Your task to perform on an android device: Clear all items from cart on amazon.com. Search for "usb-a" on amazon.com, select the first entry, add it to the cart, then select checkout. Image 0: 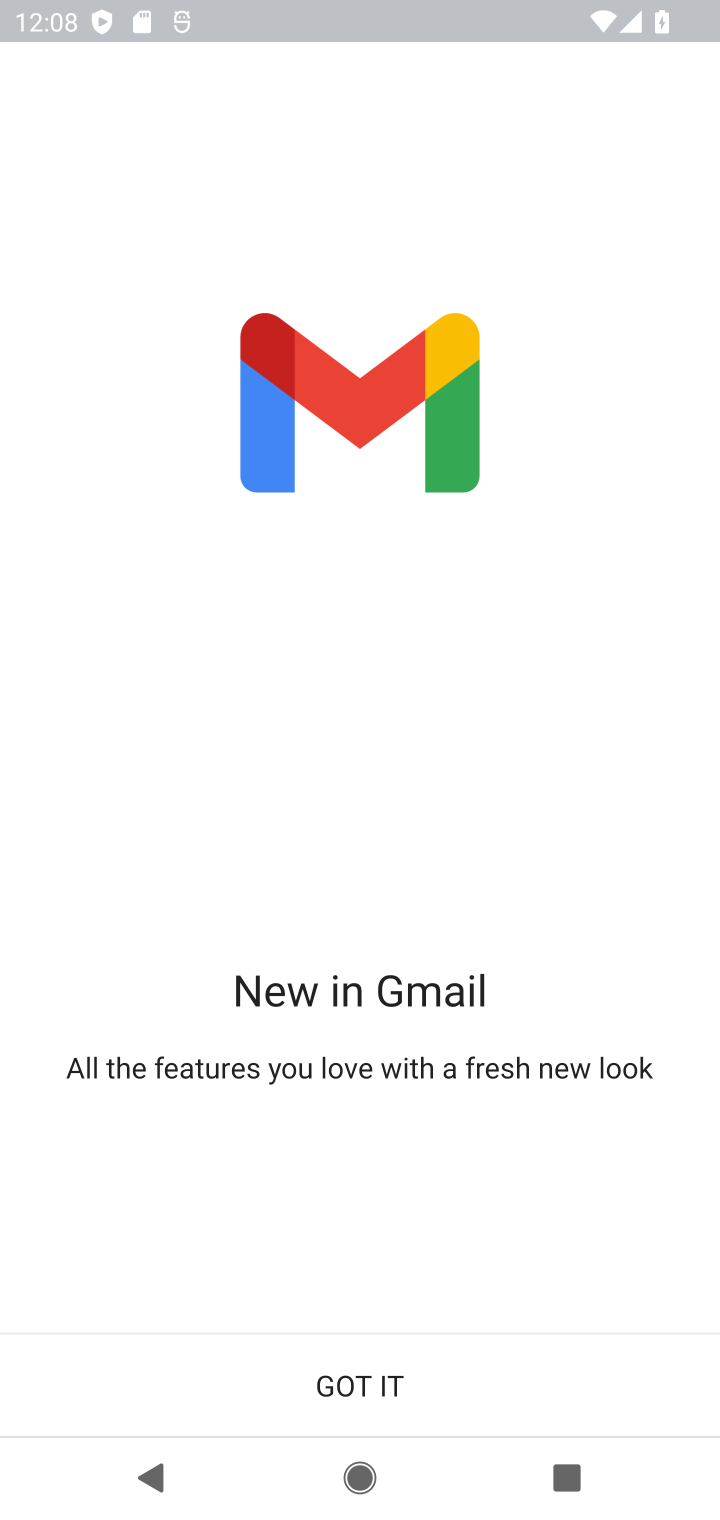
Step 0: press home button
Your task to perform on an android device: Clear all items from cart on amazon.com. Search for "usb-a" on amazon.com, select the first entry, add it to the cart, then select checkout. Image 1: 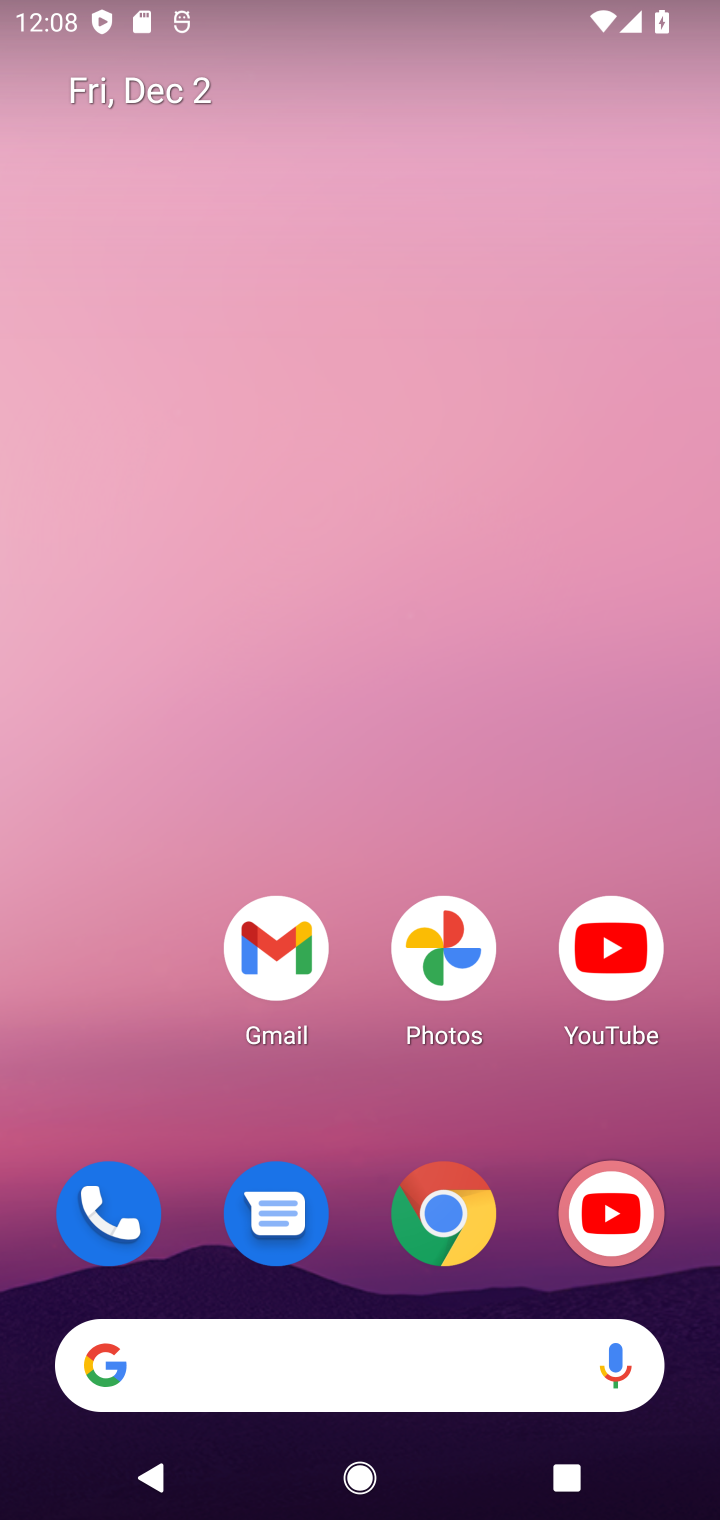
Step 1: drag from (381, 647) to (510, 44)
Your task to perform on an android device: Clear all items from cart on amazon.com. Search for "usb-a" on amazon.com, select the first entry, add it to the cart, then select checkout. Image 2: 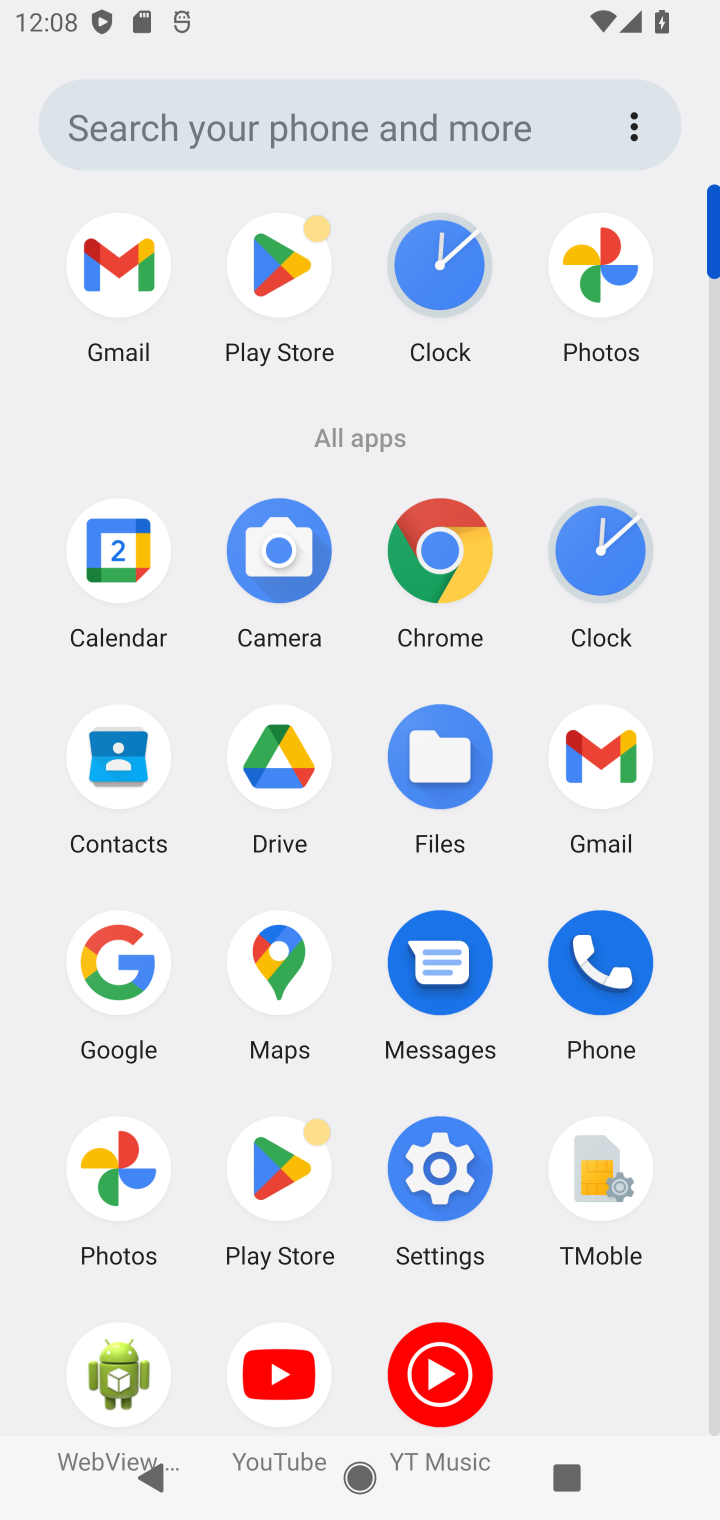
Step 2: click (141, 951)
Your task to perform on an android device: Clear all items from cart on amazon.com. Search for "usb-a" on amazon.com, select the first entry, add it to the cart, then select checkout. Image 3: 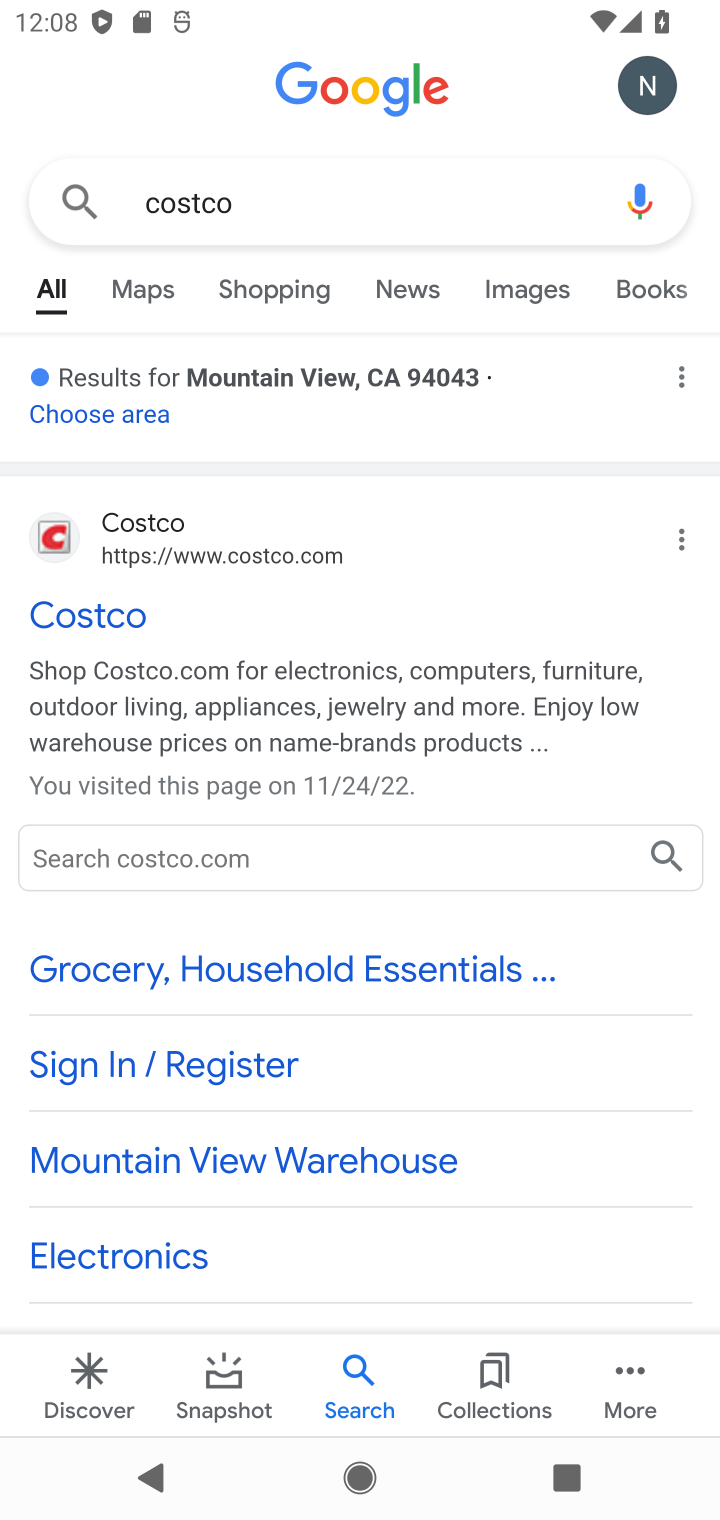
Step 3: click (249, 191)
Your task to perform on an android device: Clear all items from cart on amazon.com. Search for "usb-a" on amazon.com, select the first entry, add it to the cart, then select checkout. Image 4: 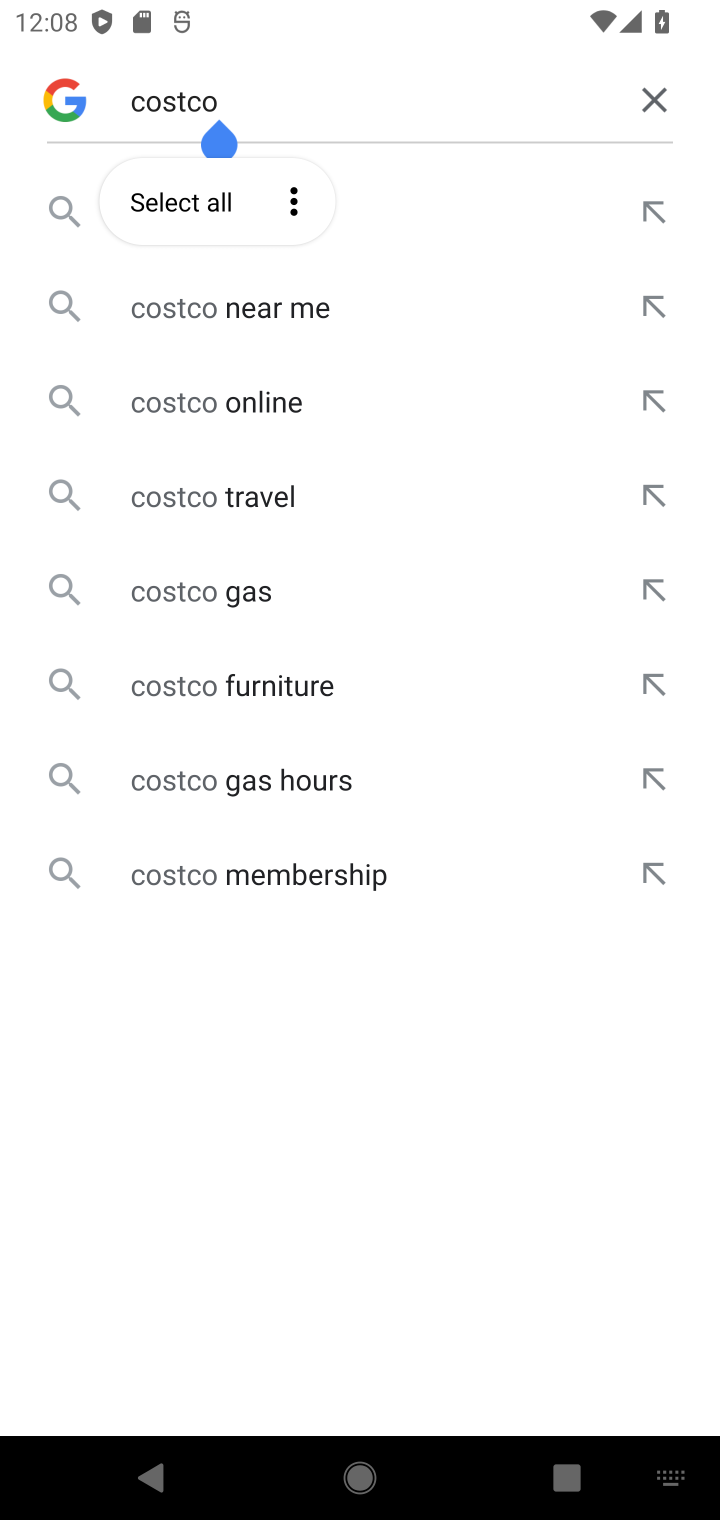
Step 4: click (656, 83)
Your task to perform on an android device: Clear all items from cart on amazon.com. Search for "usb-a" on amazon.com, select the first entry, add it to the cart, then select checkout. Image 5: 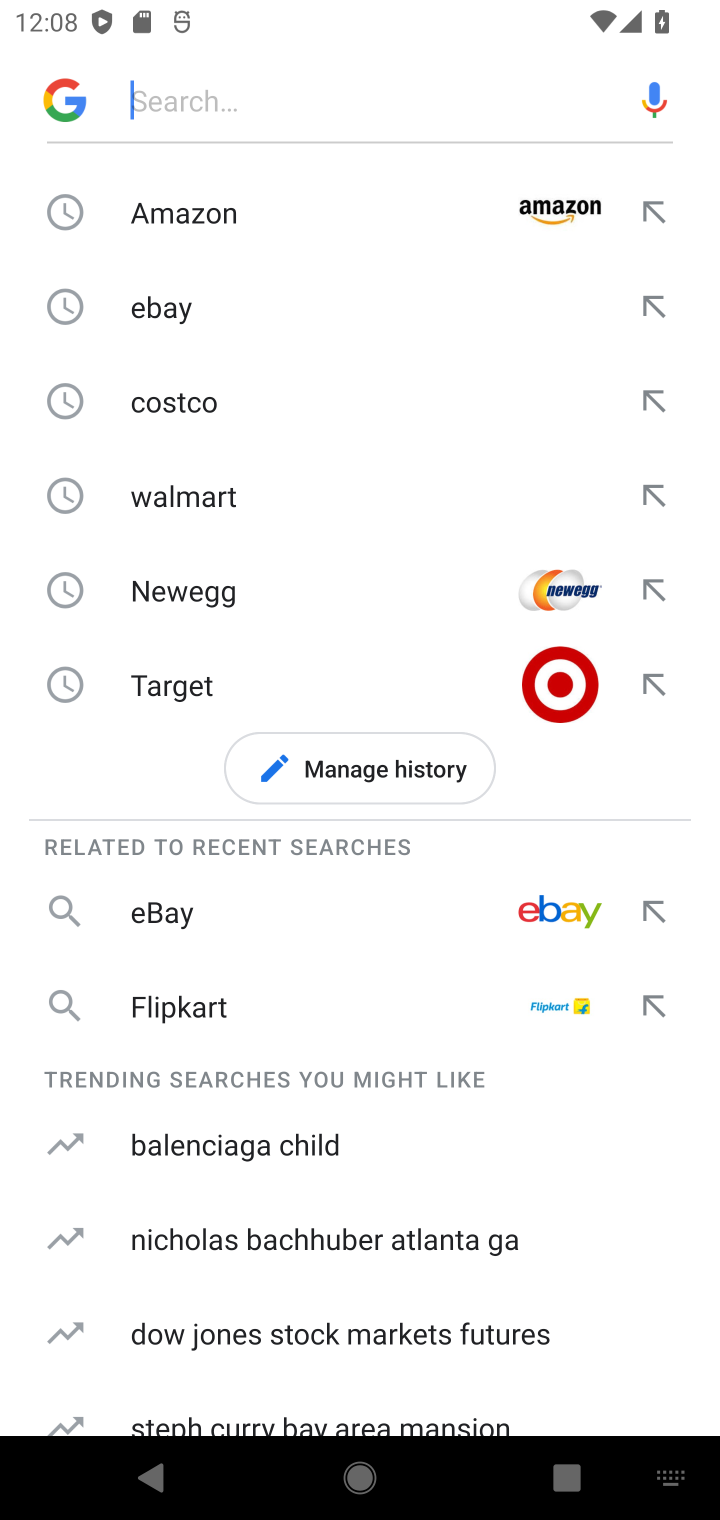
Step 5: click (246, 215)
Your task to perform on an android device: Clear all items from cart on amazon.com. Search for "usb-a" on amazon.com, select the first entry, add it to the cart, then select checkout. Image 6: 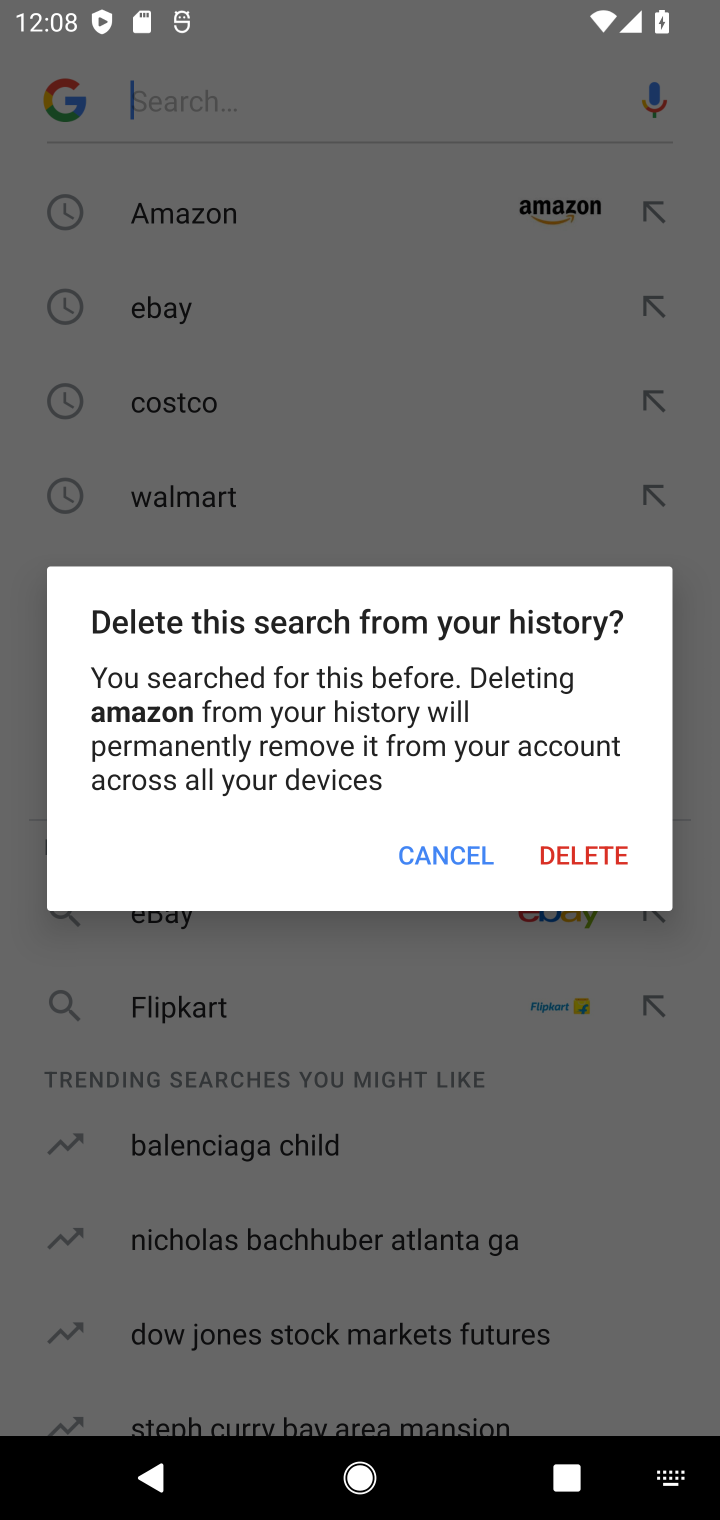
Step 6: click (469, 839)
Your task to perform on an android device: Clear all items from cart on amazon.com. Search for "usb-a" on amazon.com, select the first entry, add it to the cart, then select checkout. Image 7: 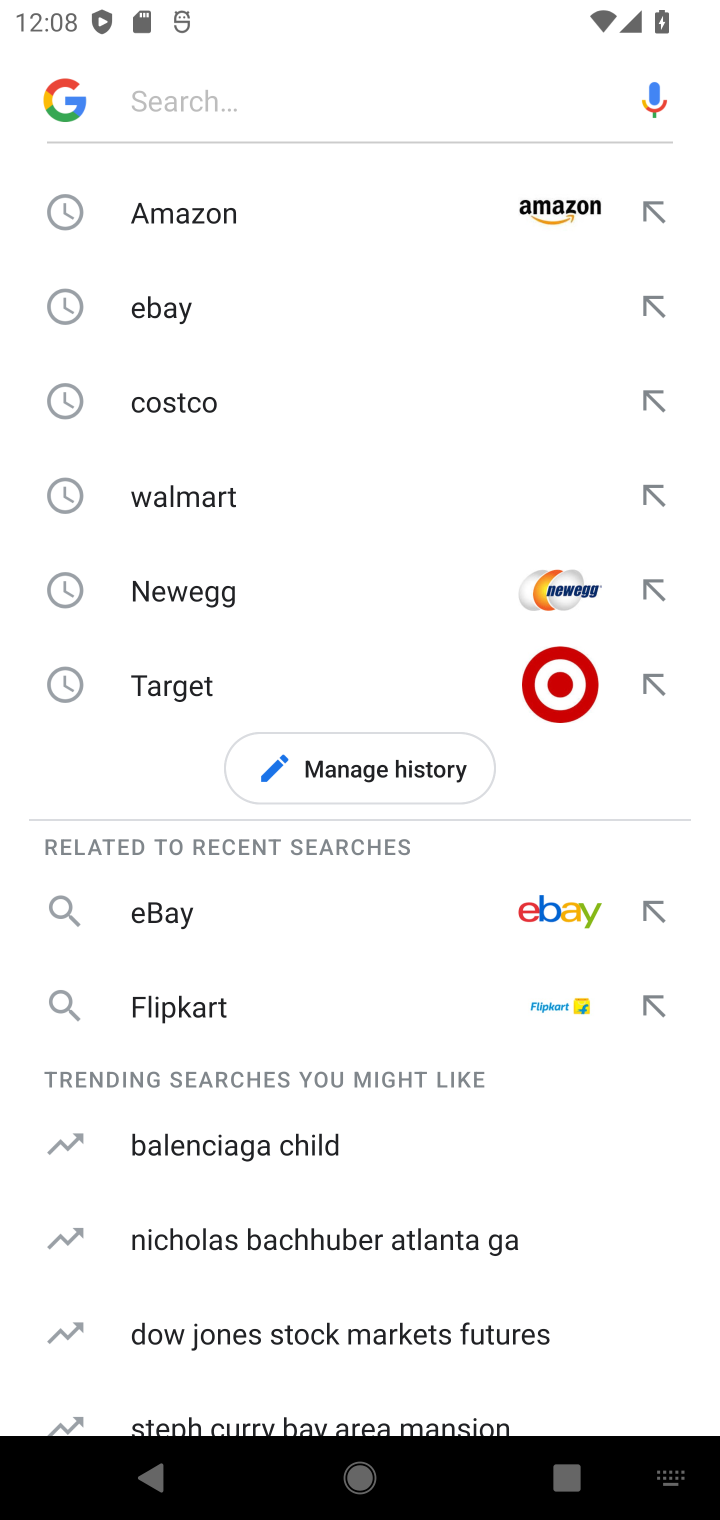
Step 7: click (567, 202)
Your task to perform on an android device: Clear all items from cart on amazon.com. Search for "usb-a" on amazon.com, select the first entry, add it to the cart, then select checkout. Image 8: 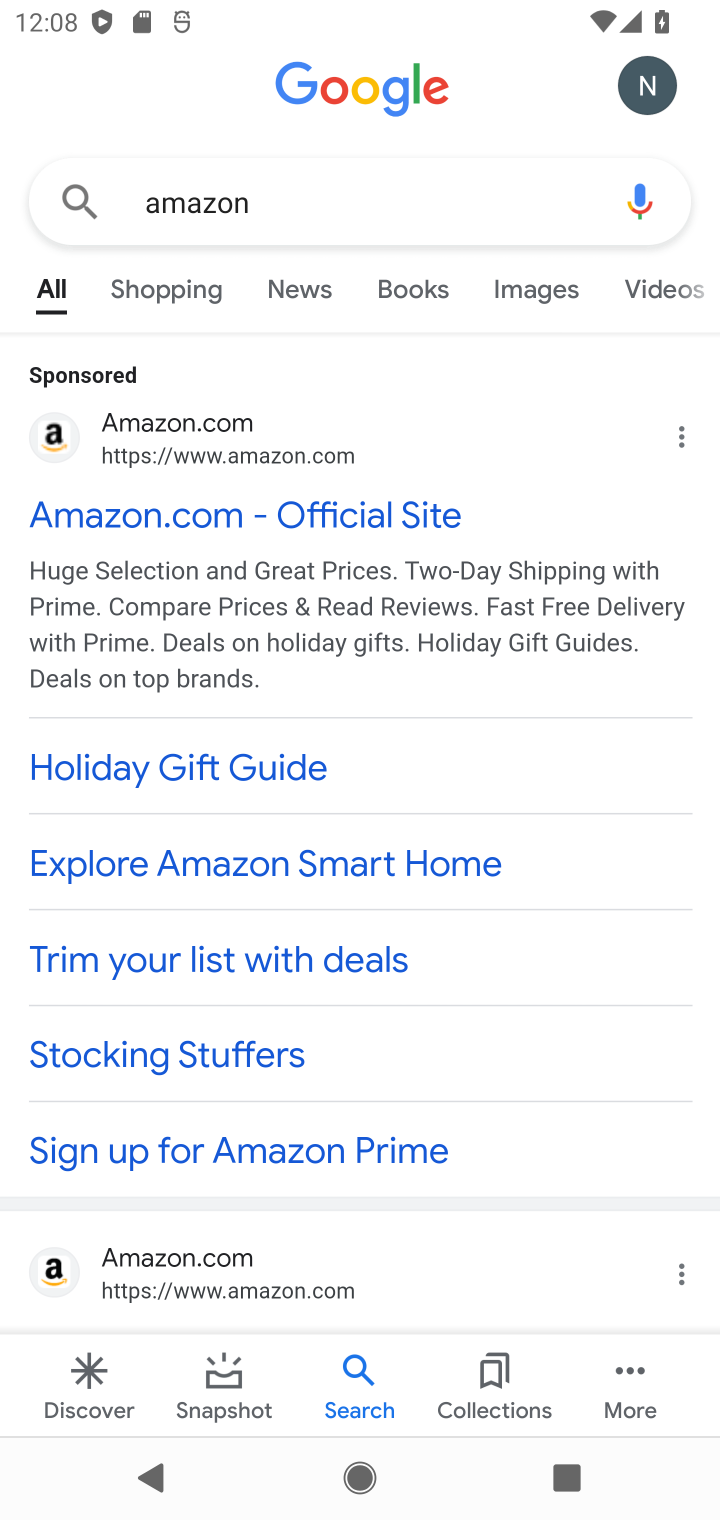
Step 8: click (226, 506)
Your task to perform on an android device: Clear all items from cart on amazon.com. Search for "usb-a" on amazon.com, select the first entry, add it to the cart, then select checkout. Image 9: 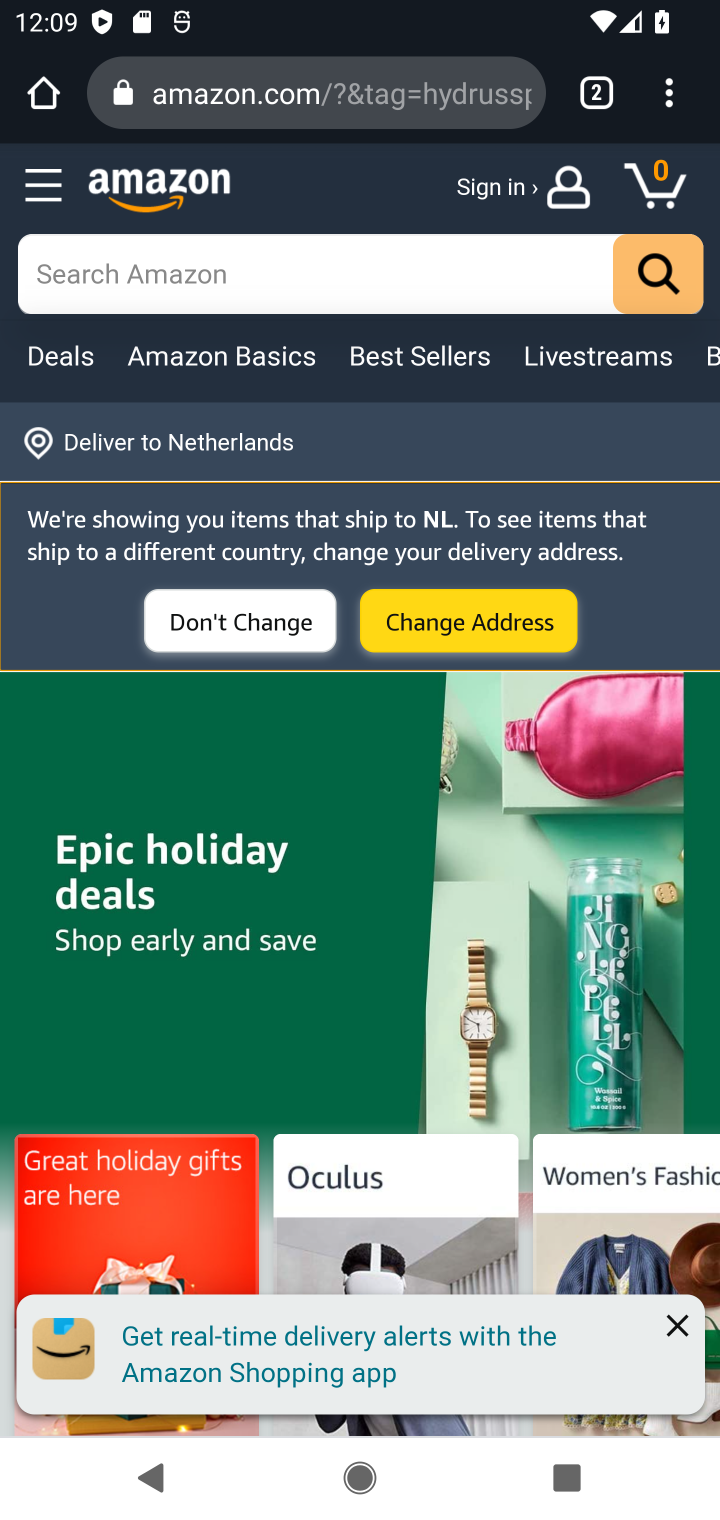
Step 9: click (669, 1328)
Your task to perform on an android device: Clear all items from cart on amazon.com. Search for "usb-a" on amazon.com, select the first entry, add it to the cart, then select checkout. Image 10: 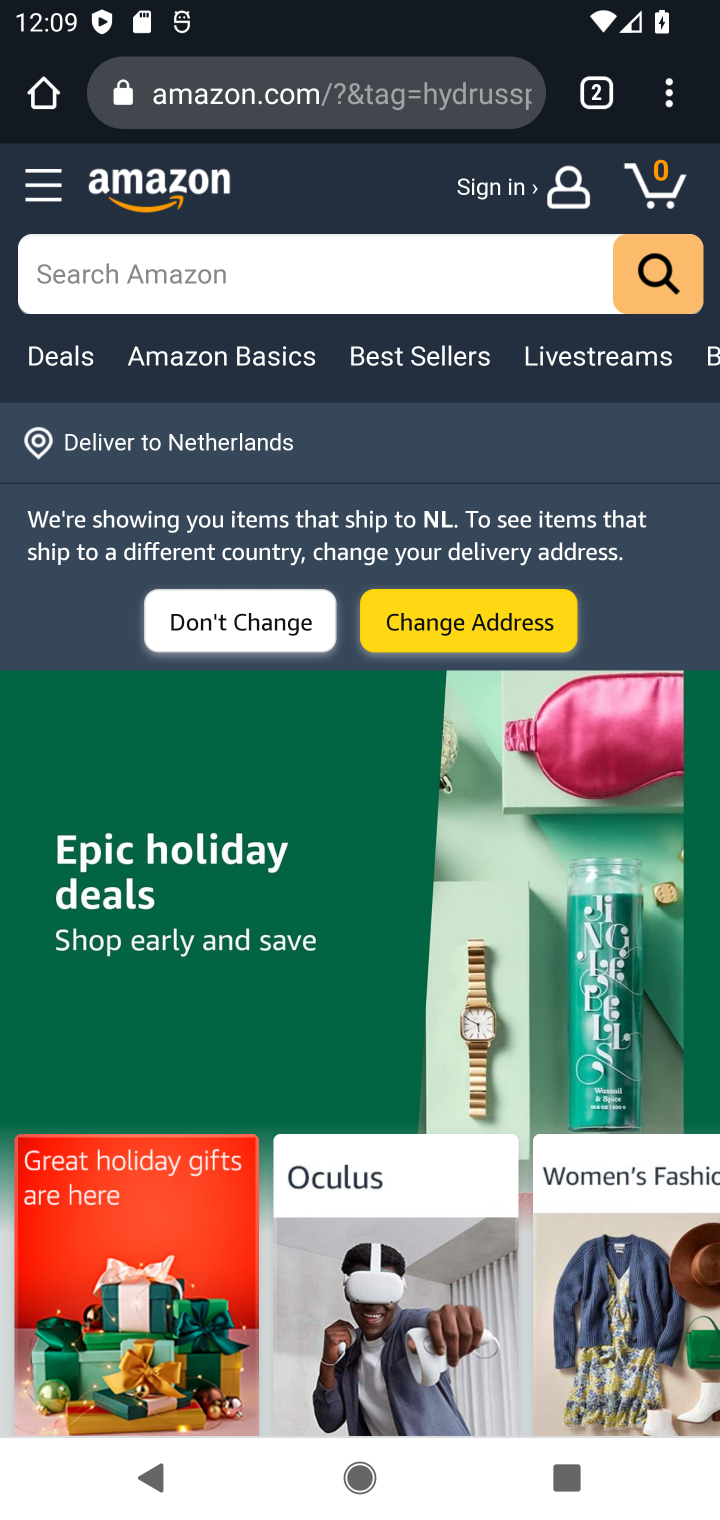
Step 10: click (213, 248)
Your task to perform on an android device: Clear all items from cart on amazon.com. Search for "usb-a" on amazon.com, select the first entry, add it to the cart, then select checkout. Image 11: 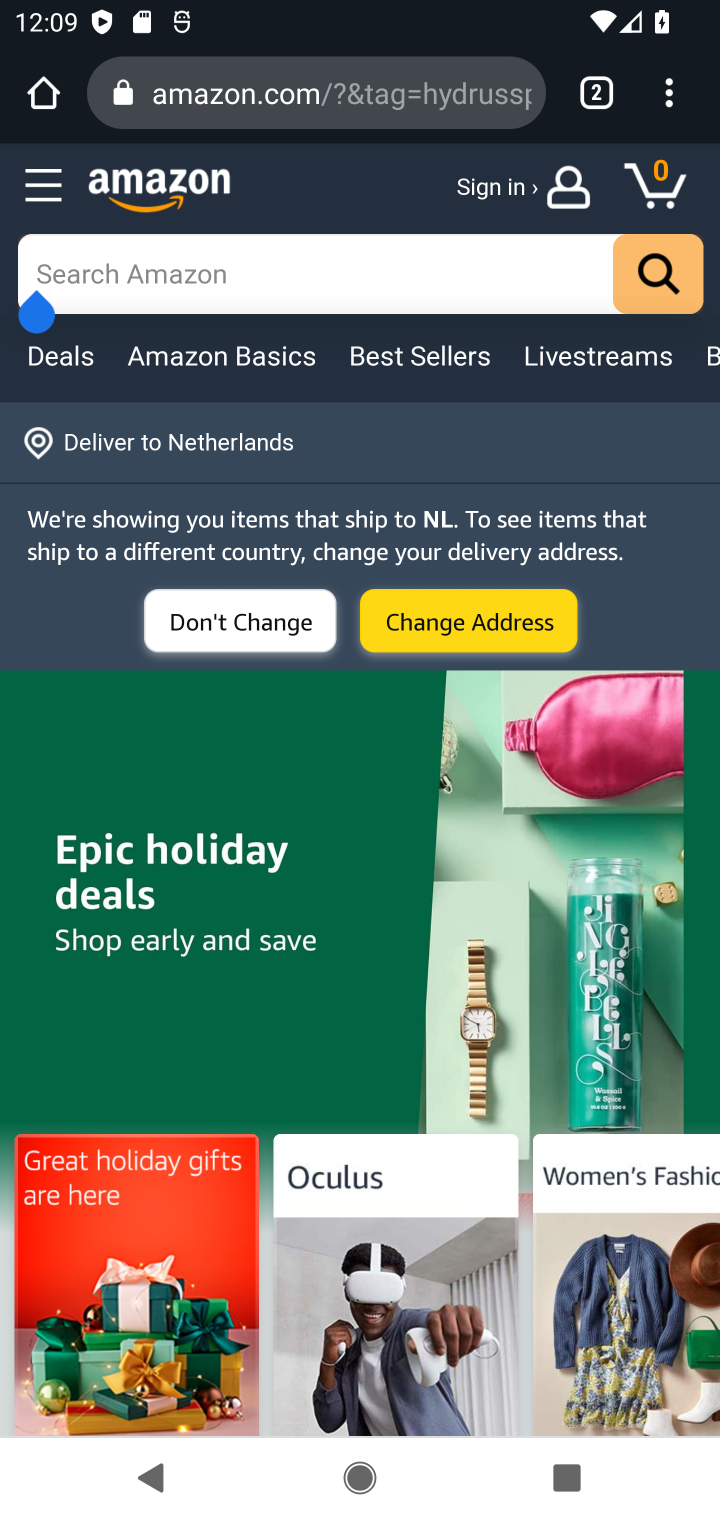
Step 11: type "usb-a"
Your task to perform on an android device: Clear all items from cart on amazon.com. Search for "usb-a" on amazon.com, select the first entry, add it to the cart, then select checkout. Image 12: 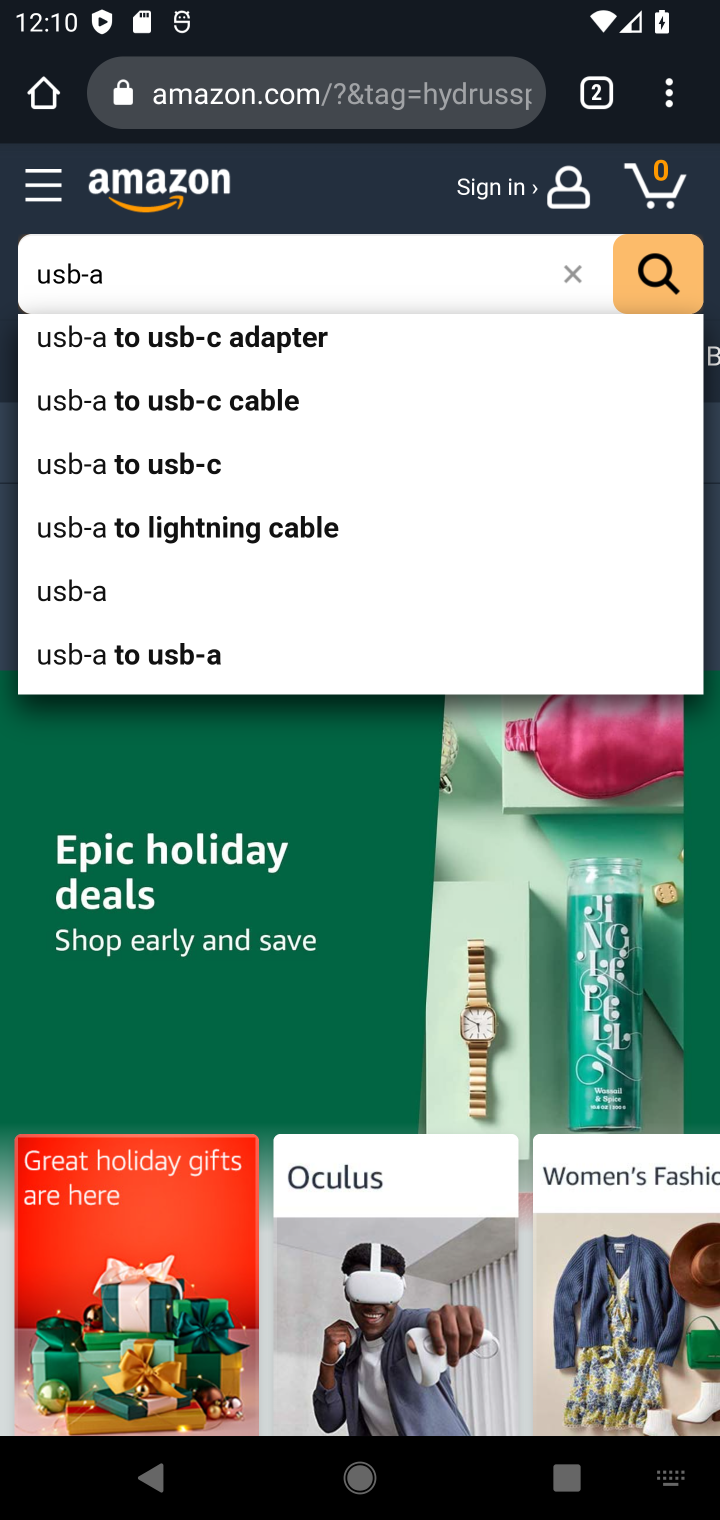
Step 12: click (53, 593)
Your task to perform on an android device: Clear all items from cart on amazon.com. Search for "usb-a" on amazon.com, select the first entry, add it to the cart, then select checkout. Image 13: 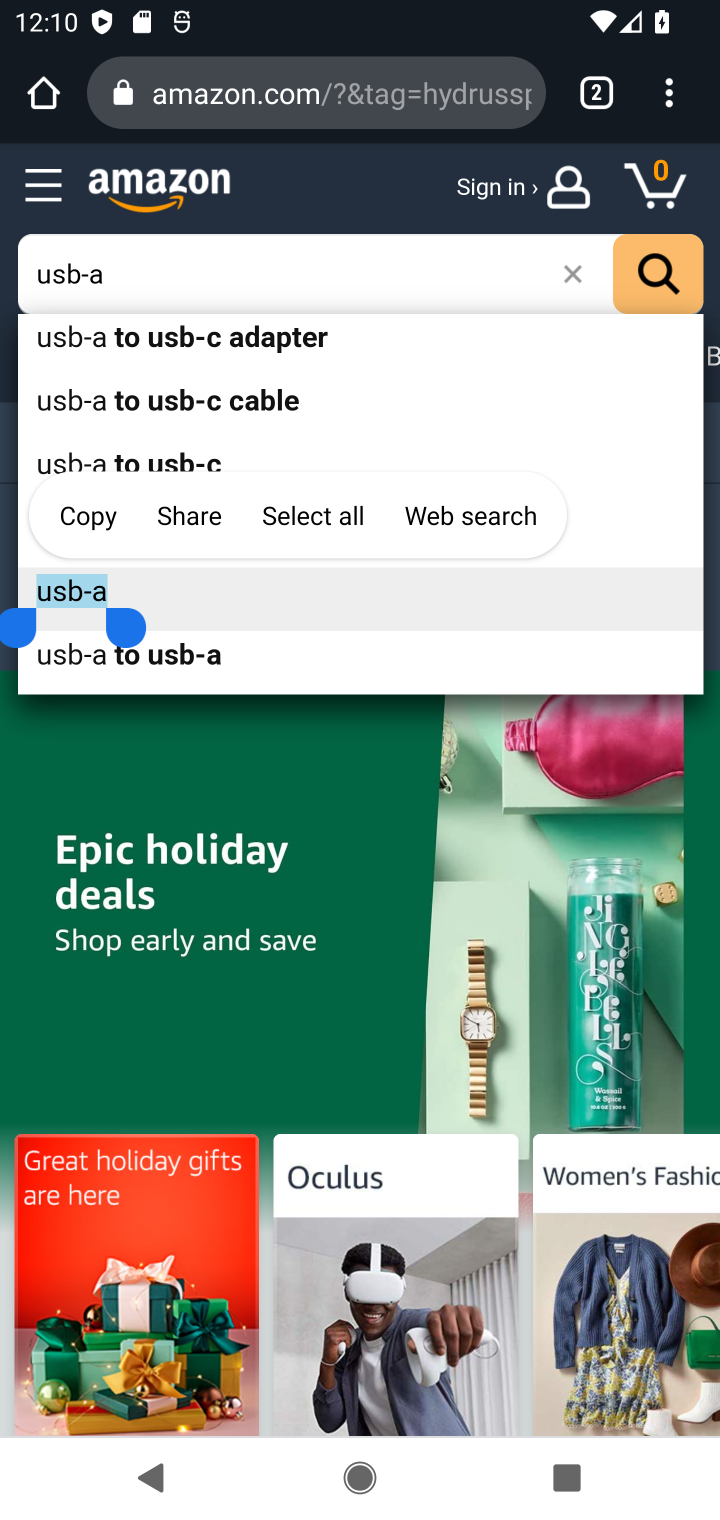
Step 13: click (77, 594)
Your task to perform on an android device: Clear all items from cart on amazon.com. Search for "usb-a" on amazon.com, select the first entry, add it to the cart, then select checkout. Image 14: 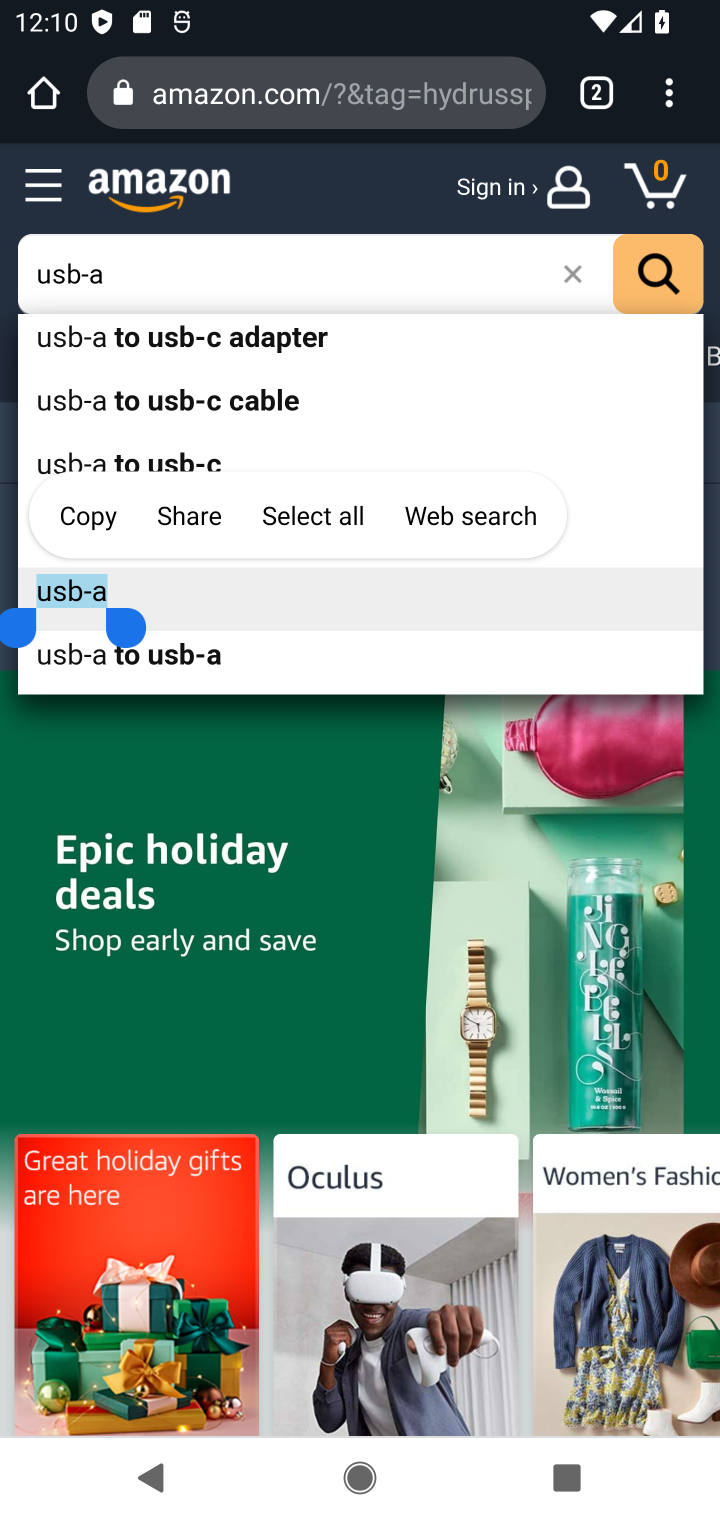
Step 14: click (189, 593)
Your task to perform on an android device: Clear all items from cart on amazon.com. Search for "usb-a" on amazon.com, select the first entry, add it to the cart, then select checkout. Image 15: 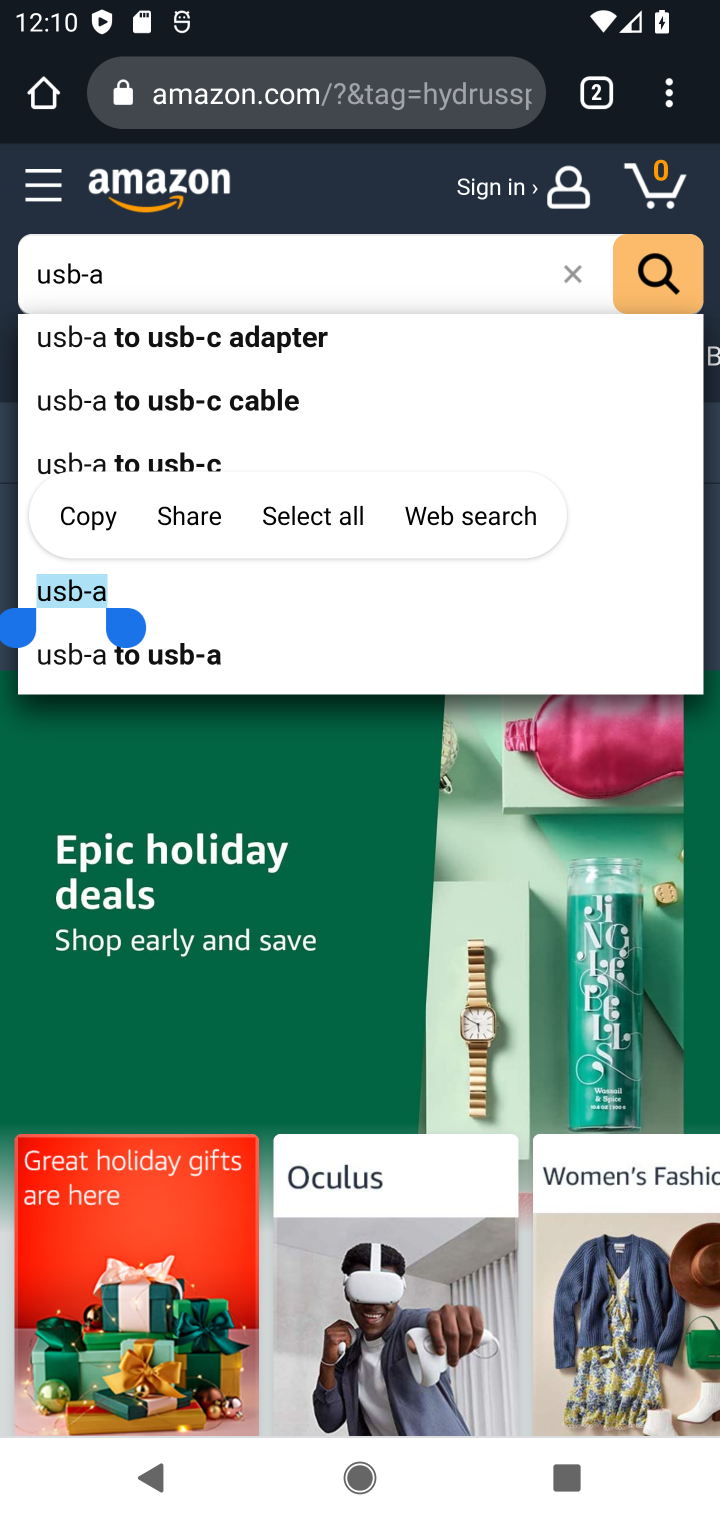
Step 15: click (128, 585)
Your task to perform on an android device: Clear all items from cart on amazon.com. Search for "usb-a" on amazon.com, select the first entry, add it to the cart, then select checkout. Image 16: 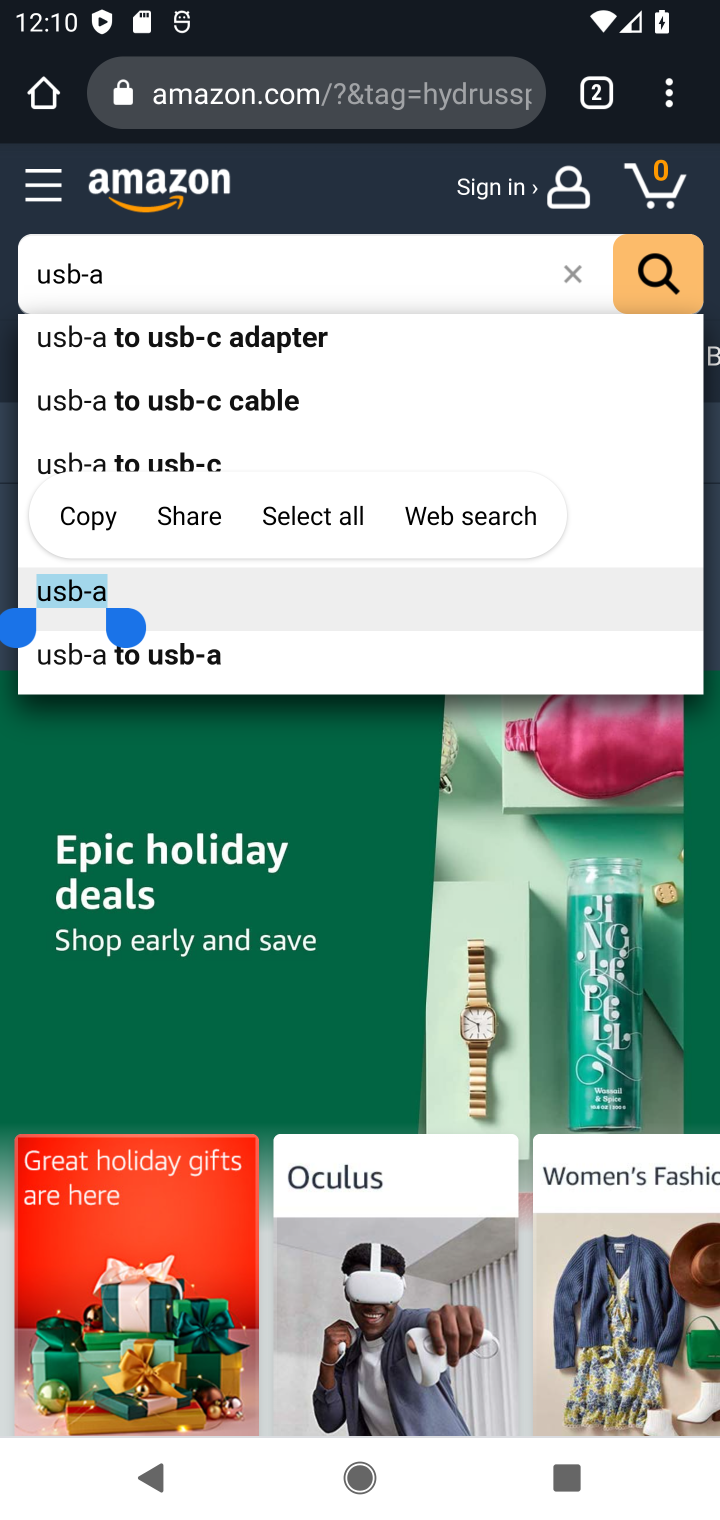
Step 16: click (74, 587)
Your task to perform on an android device: Clear all items from cart on amazon.com. Search for "usb-a" on amazon.com, select the first entry, add it to the cart, then select checkout. Image 17: 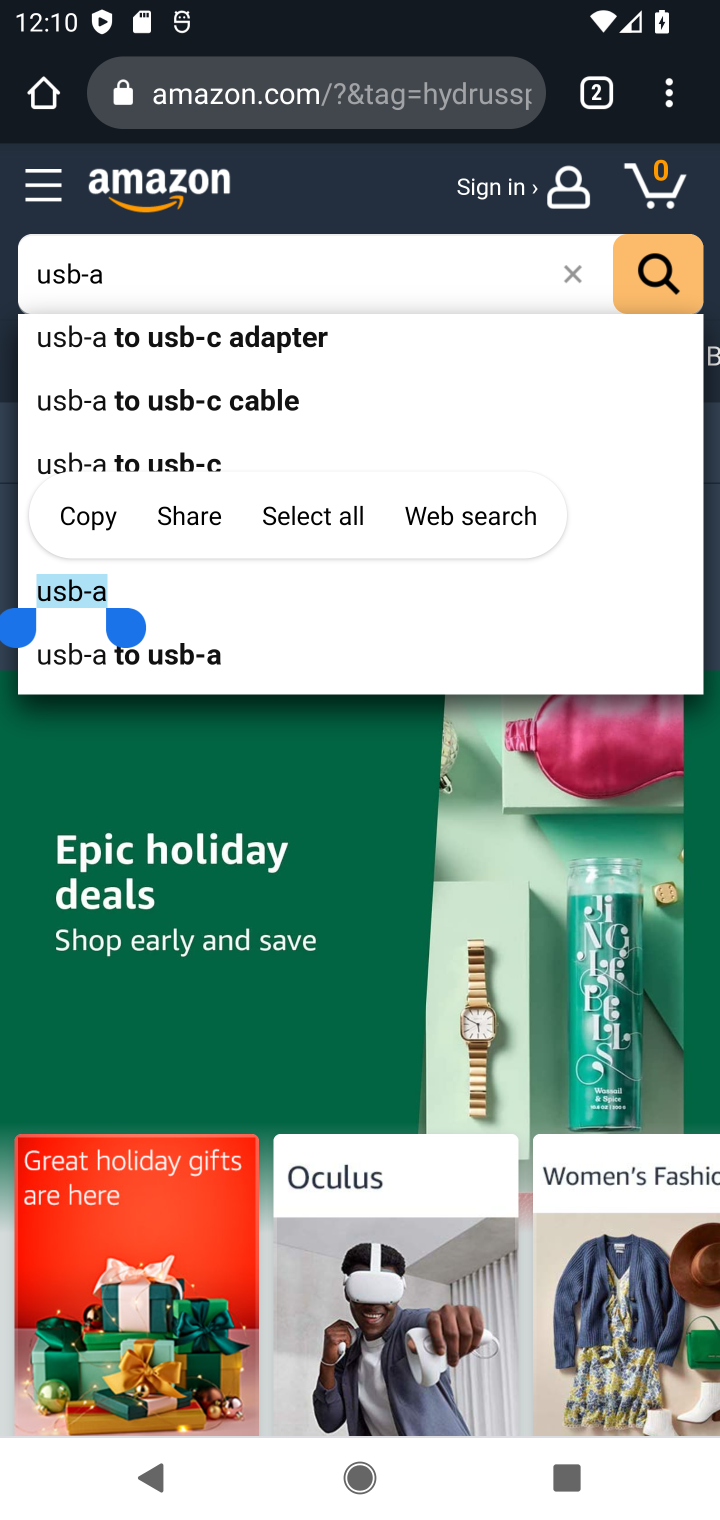
Step 17: click (656, 258)
Your task to perform on an android device: Clear all items from cart on amazon.com. Search for "usb-a" on amazon.com, select the first entry, add it to the cart, then select checkout. Image 18: 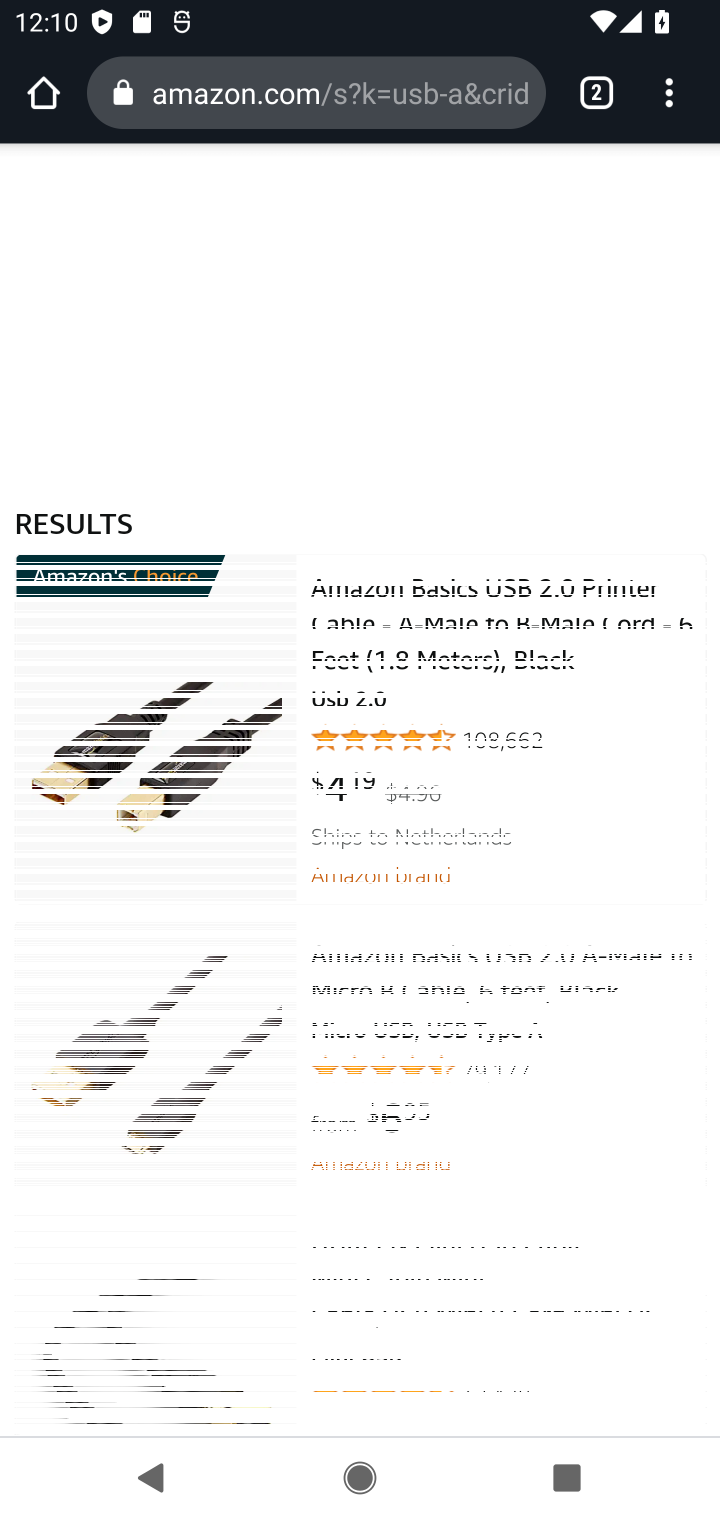
Step 18: click (364, 677)
Your task to perform on an android device: Clear all items from cart on amazon.com. Search for "usb-a" on amazon.com, select the first entry, add it to the cart, then select checkout. Image 19: 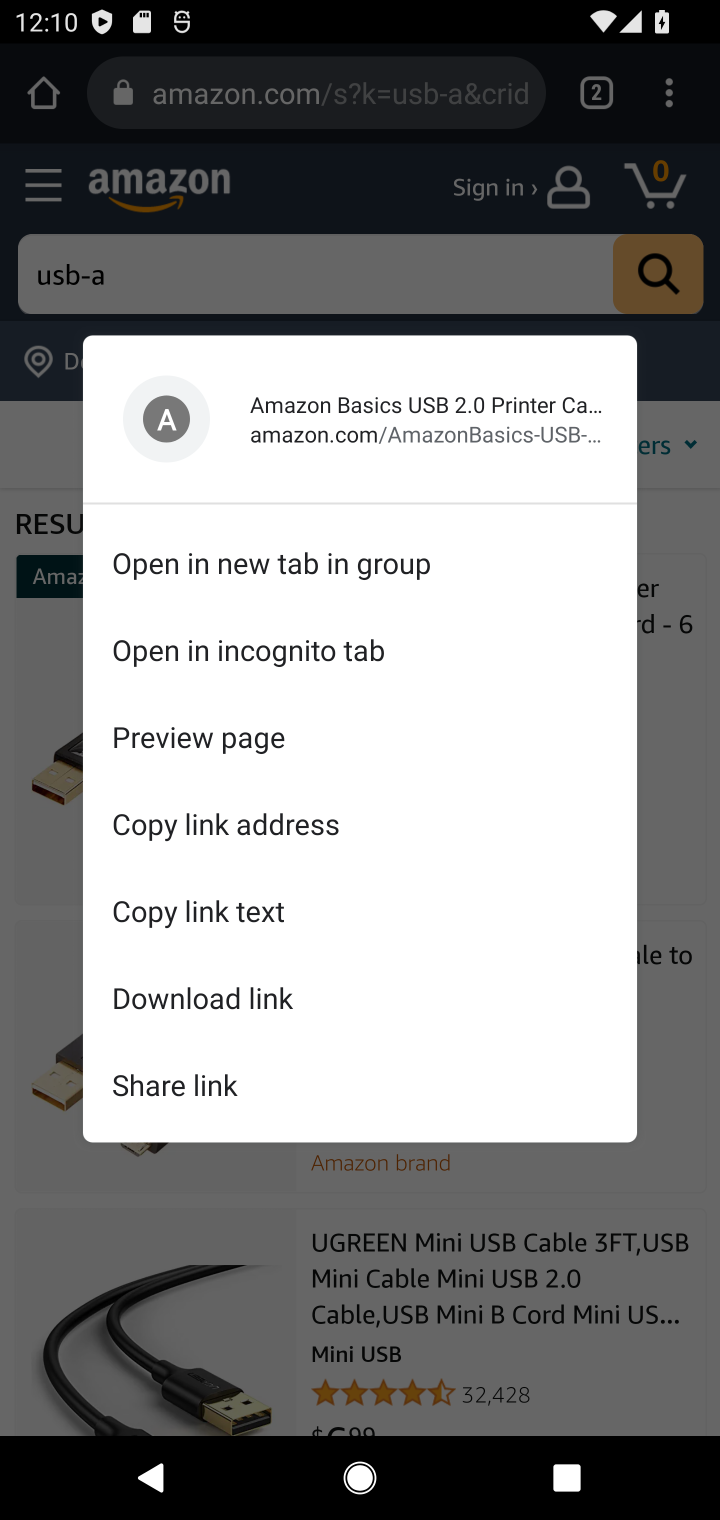
Step 19: click (30, 711)
Your task to perform on an android device: Clear all items from cart on amazon.com. Search for "usb-a" on amazon.com, select the first entry, add it to the cart, then select checkout. Image 20: 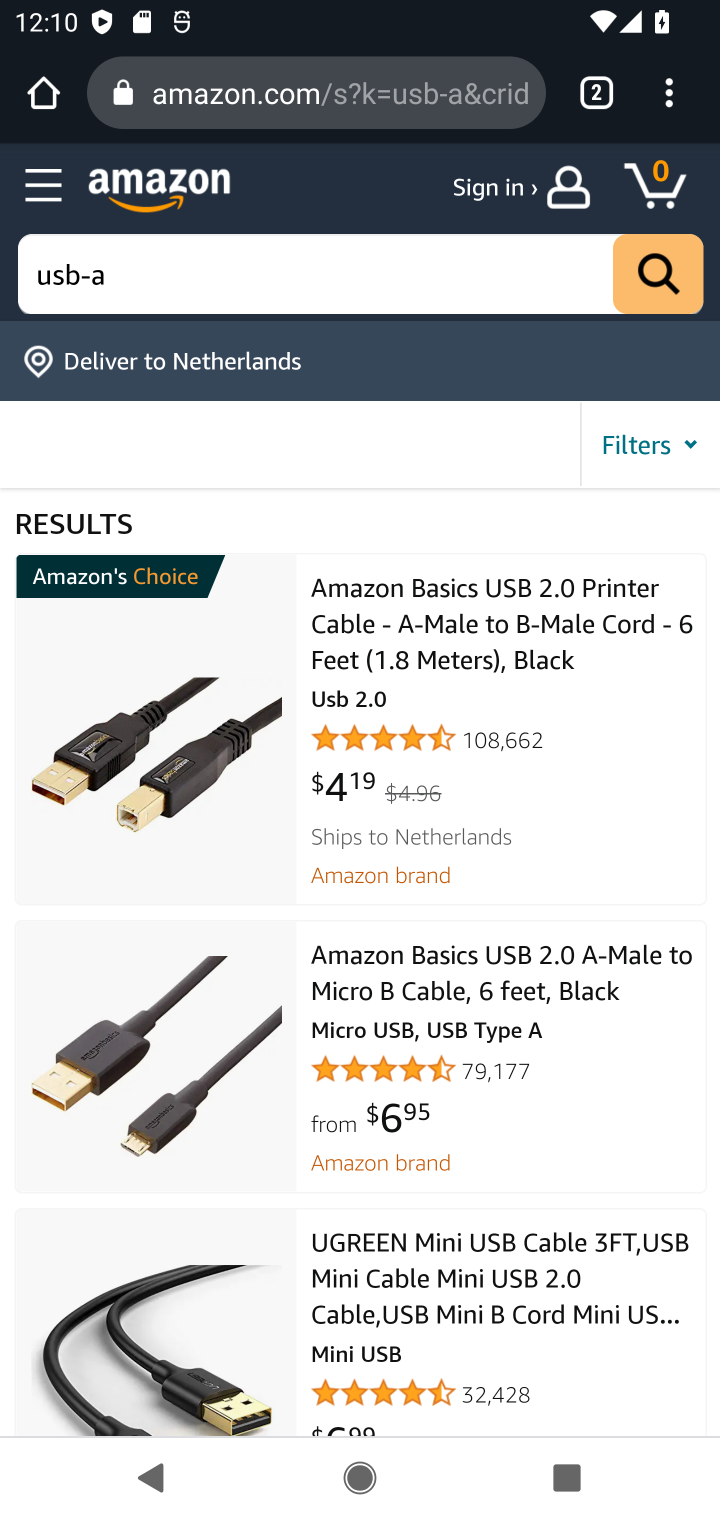
Step 20: click (144, 821)
Your task to perform on an android device: Clear all items from cart on amazon.com. Search for "usb-a" on amazon.com, select the first entry, add it to the cart, then select checkout. Image 21: 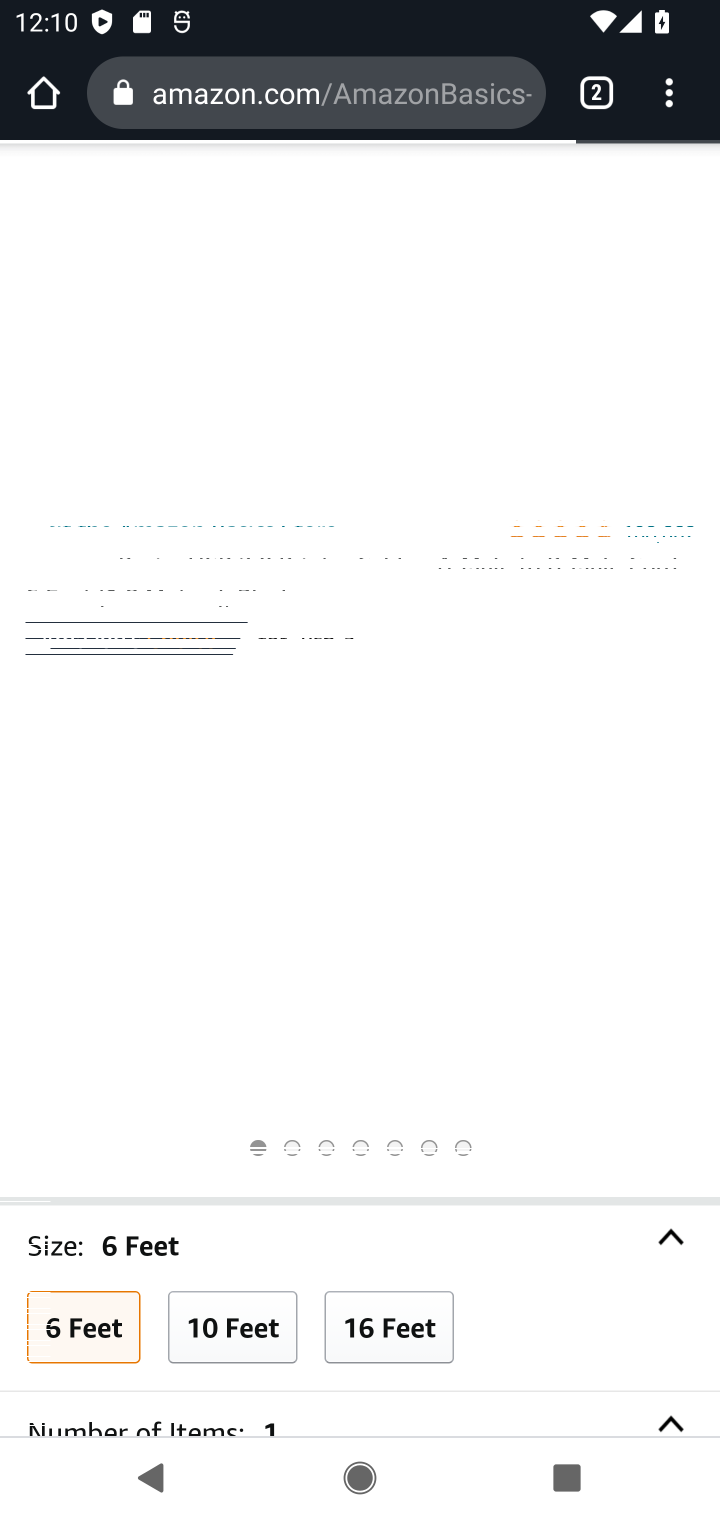
Step 21: drag from (436, 1187) to (338, 639)
Your task to perform on an android device: Clear all items from cart on amazon.com. Search for "usb-a" on amazon.com, select the first entry, add it to the cart, then select checkout. Image 22: 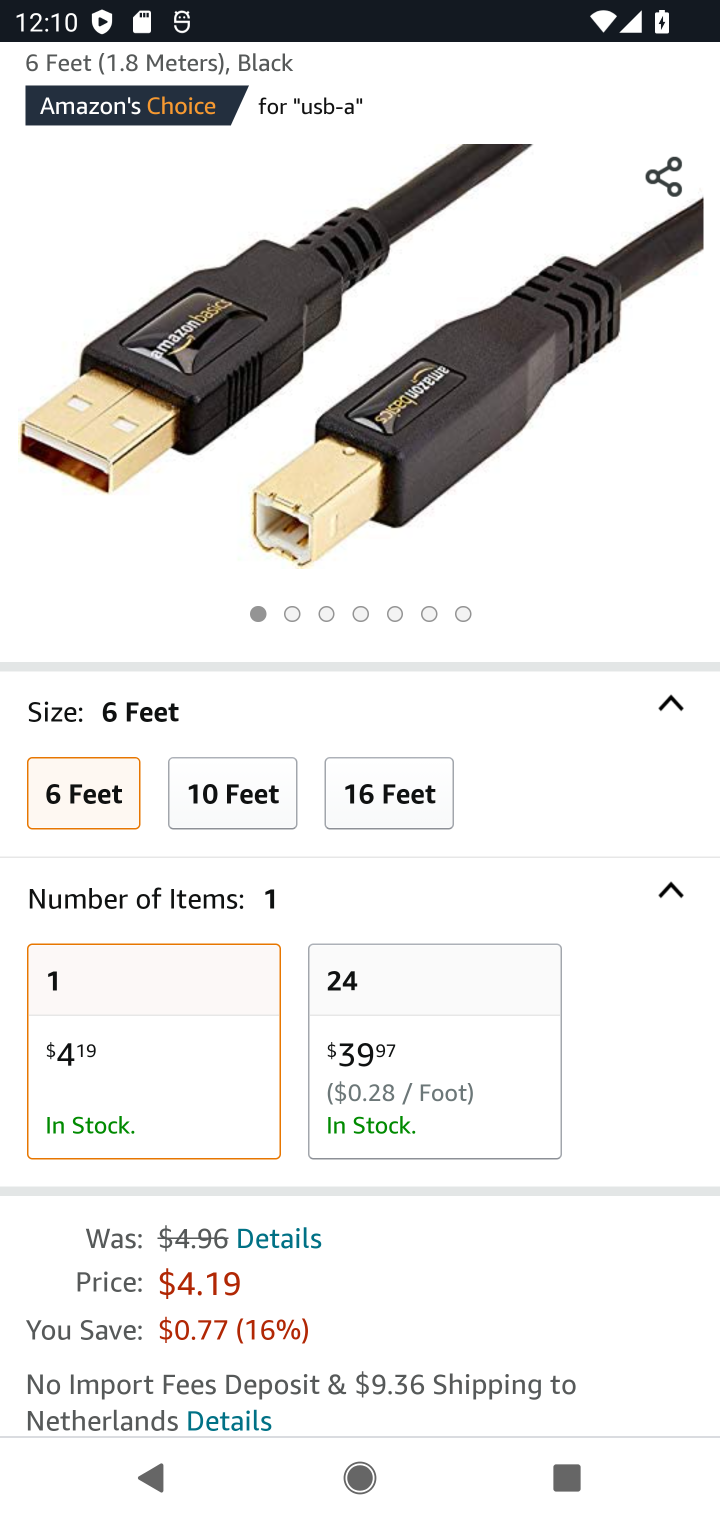
Step 22: drag from (479, 912) to (468, 705)
Your task to perform on an android device: Clear all items from cart on amazon.com. Search for "usb-a" on amazon.com, select the first entry, add it to the cart, then select checkout. Image 23: 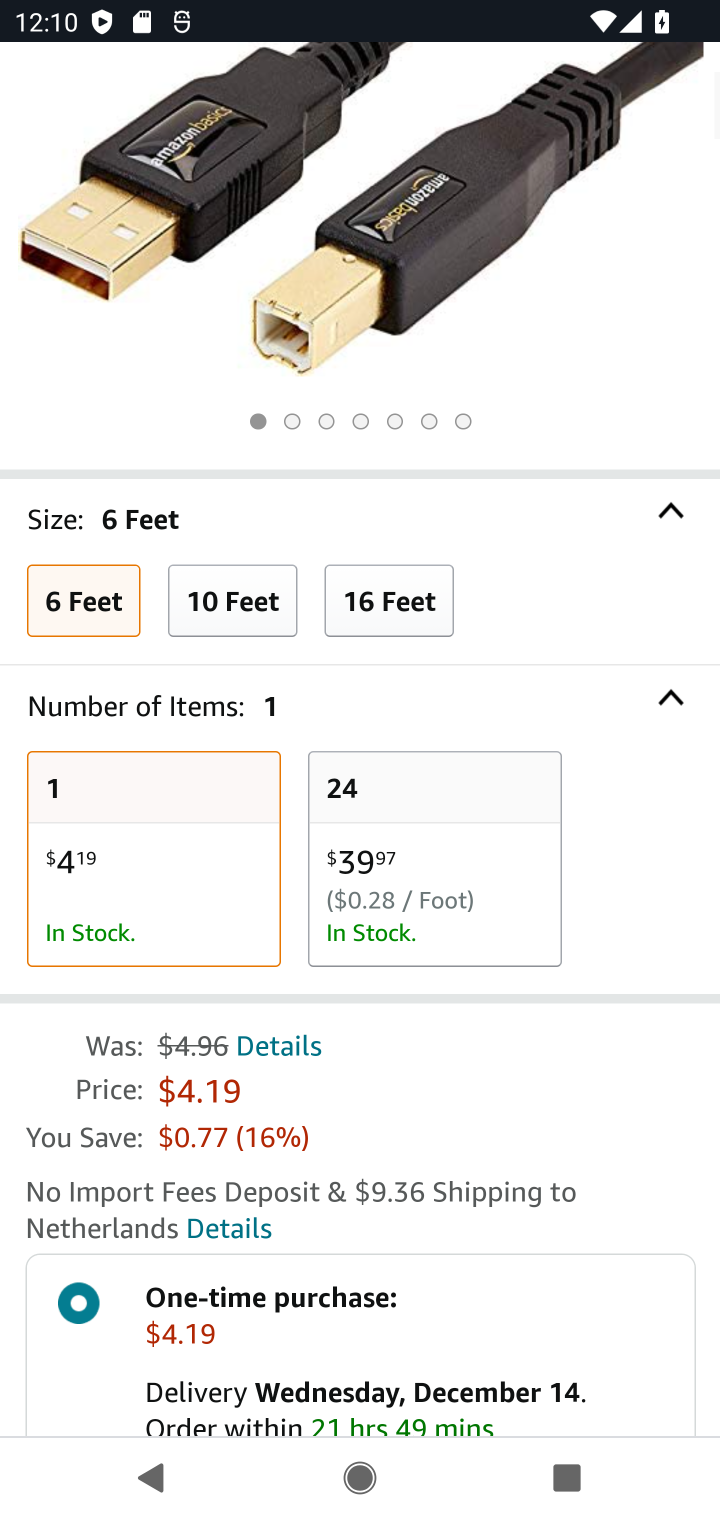
Step 23: drag from (508, 1344) to (510, 657)
Your task to perform on an android device: Clear all items from cart on amazon.com. Search for "usb-a" on amazon.com, select the first entry, add it to the cart, then select checkout. Image 24: 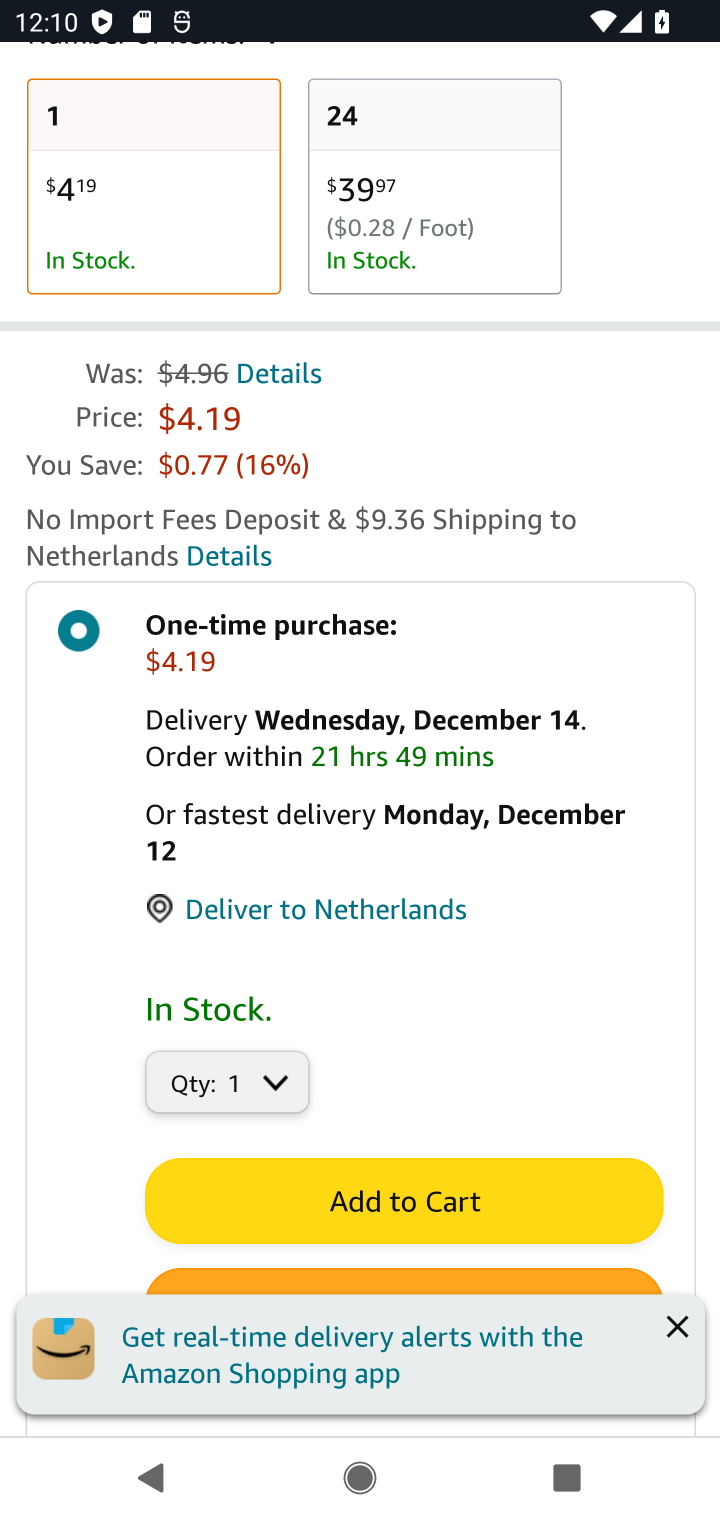
Step 24: click (438, 1208)
Your task to perform on an android device: Clear all items from cart on amazon.com. Search for "usb-a" on amazon.com, select the first entry, add it to the cart, then select checkout. Image 25: 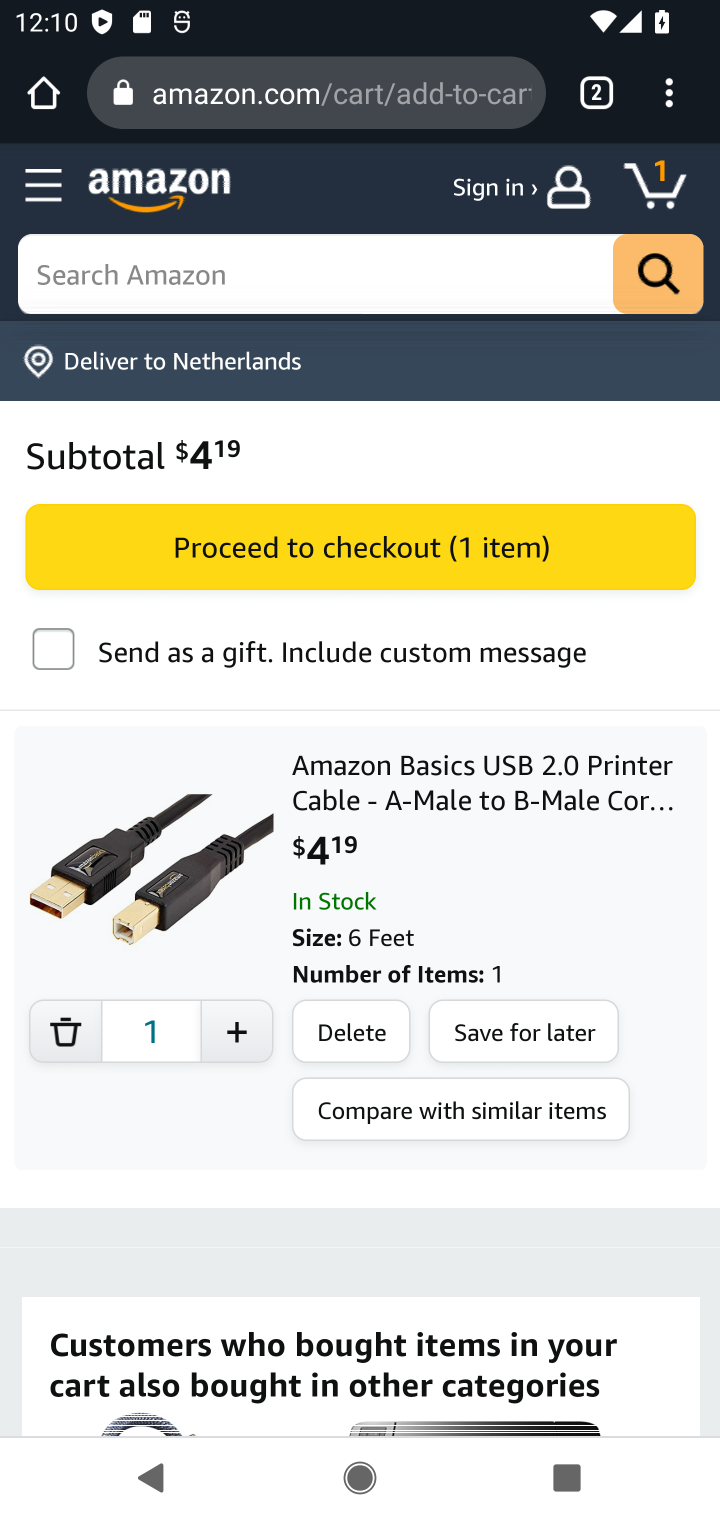
Step 25: click (639, 178)
Your task to perform on an android device: Clear all items from cart on amazon.com. Search for "usb-a" on amazon.com, select the first entry, add it to the cart, then select checkout. Image 26: 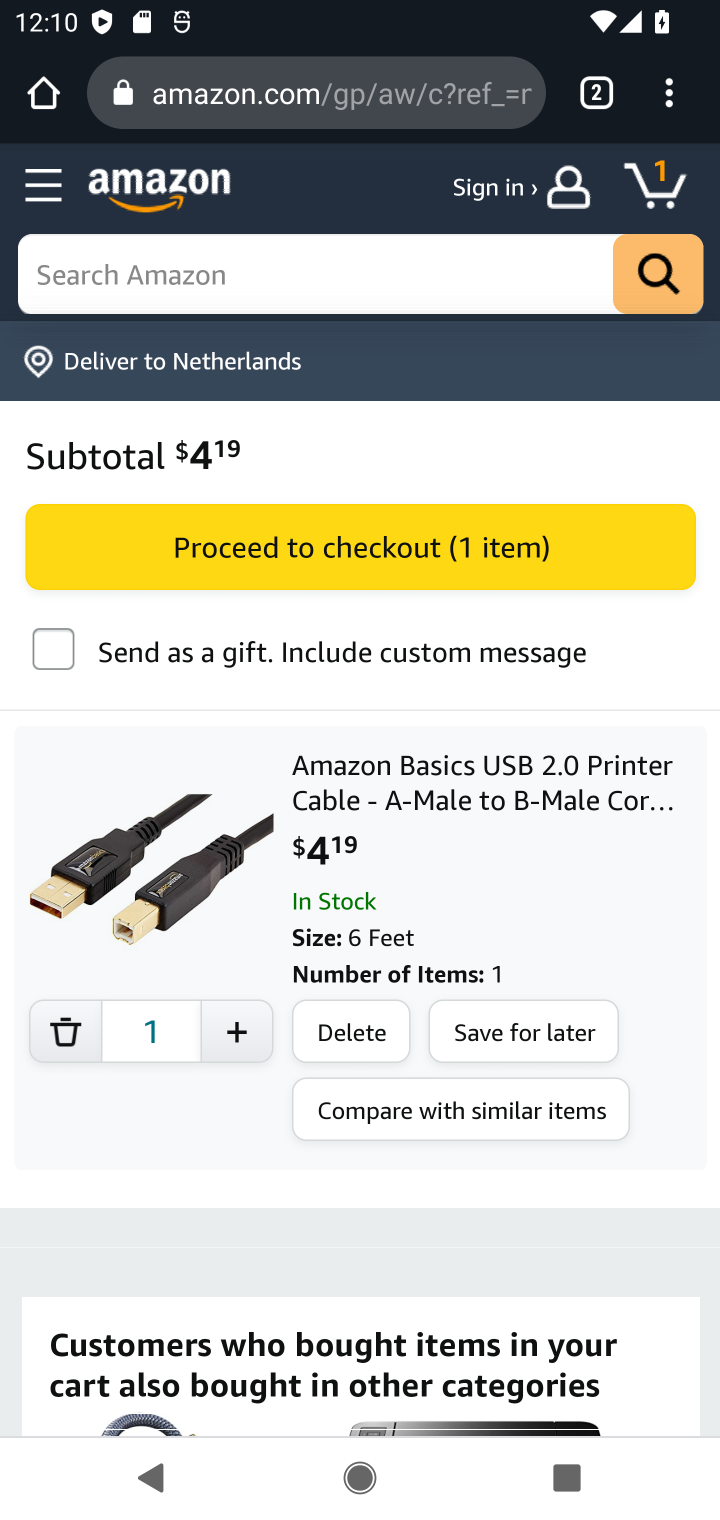
Step 26: drag from (409, 1070) to (409, 684)
Your task to perform on an android device: Clear all items from cart on amazon.com. Search for "usb-a" on amazon.com, select the first entry, add it to the cart, then select checkout. Image 27: 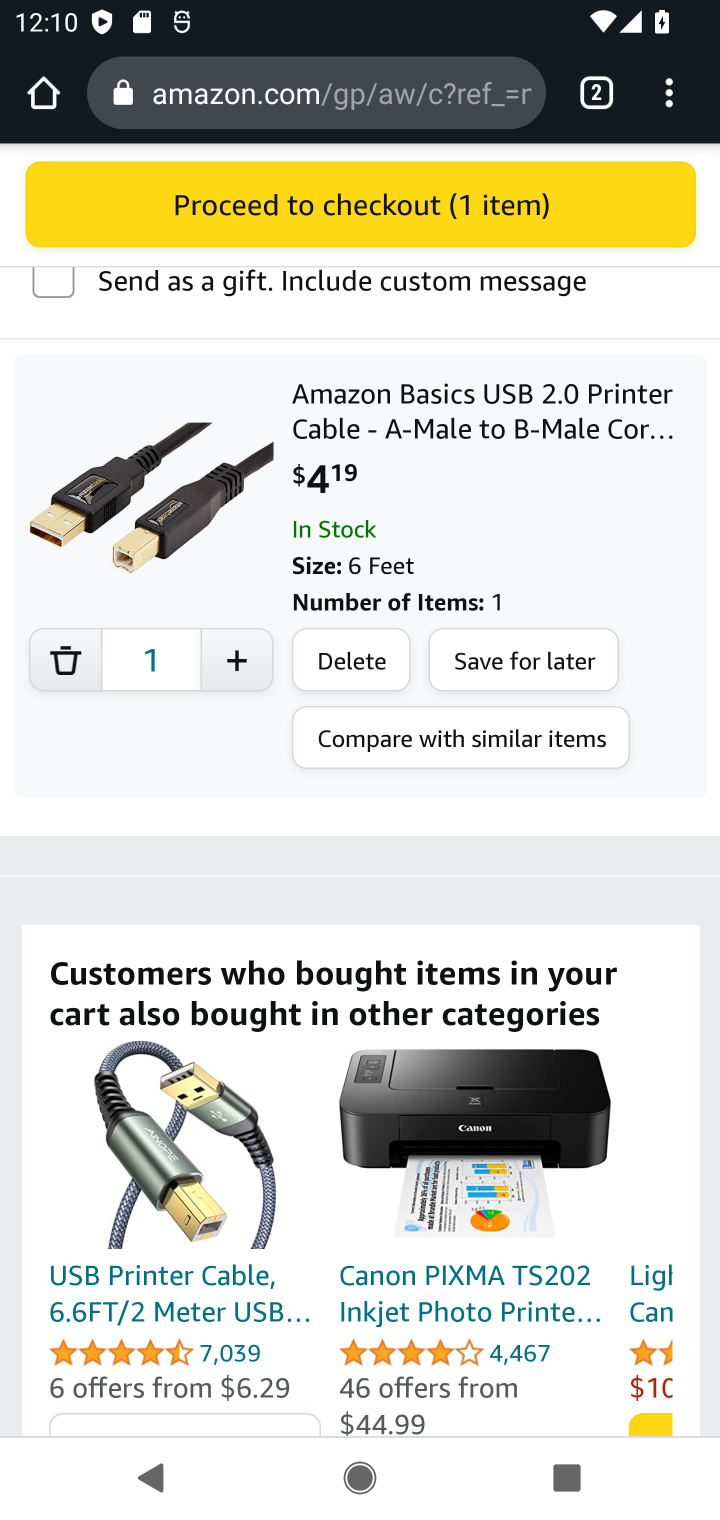
Step 27: click (409, 200)
Your task to perform on an android device: Clear all items from cart on amazon.com. Search for "usb-a" on amazon.com, select the first entry, add it to the cart, then select checkout. Image 28: 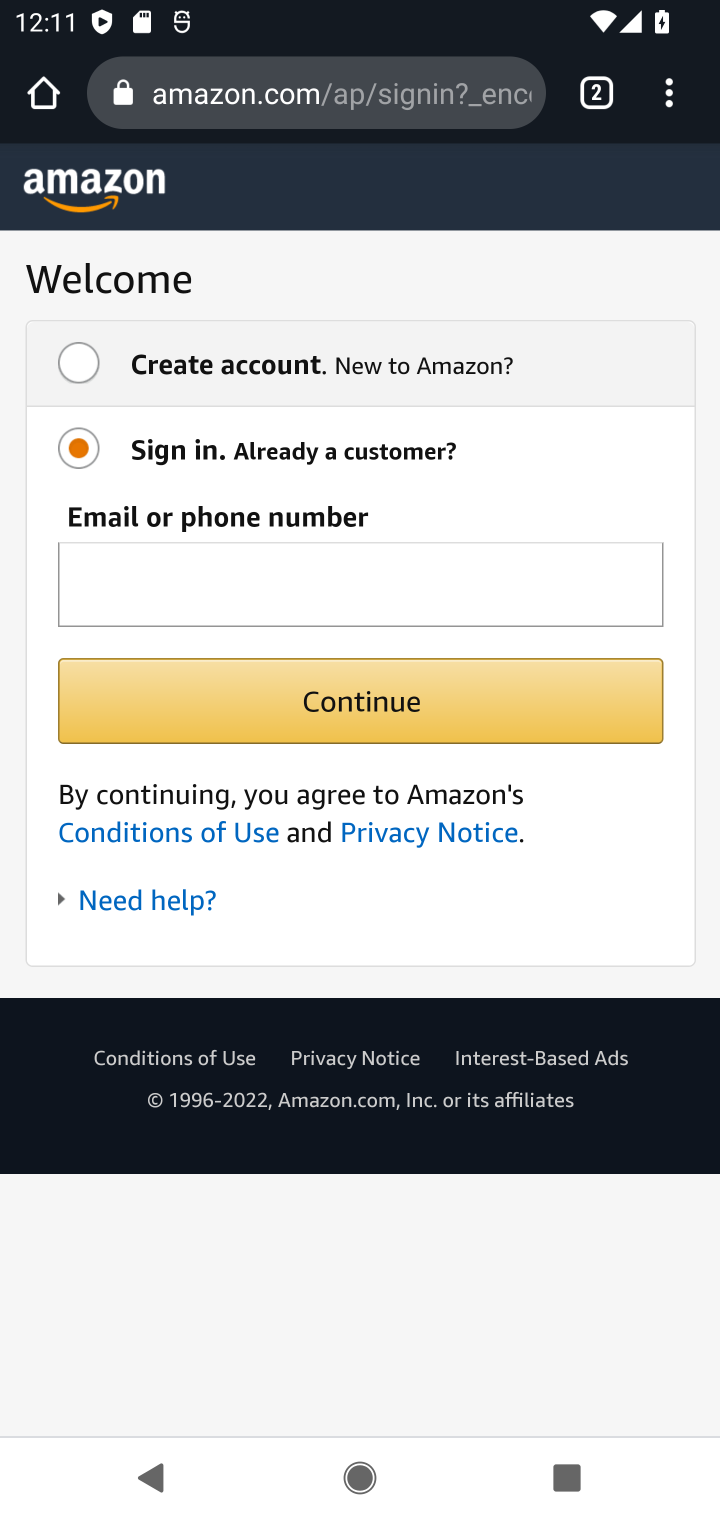
Step 28: task complete